Your task to perform on an android device: Go to Google Image 0: 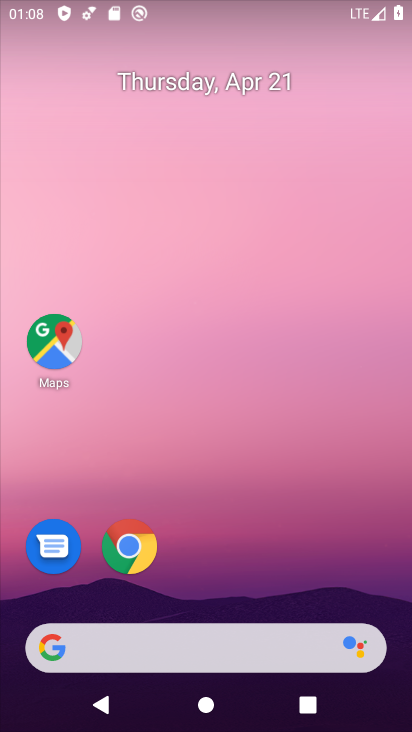
Step 0: drag from (230, 551) to (217, 213)
Your task to perform on an android device: Go to Google Image 1: 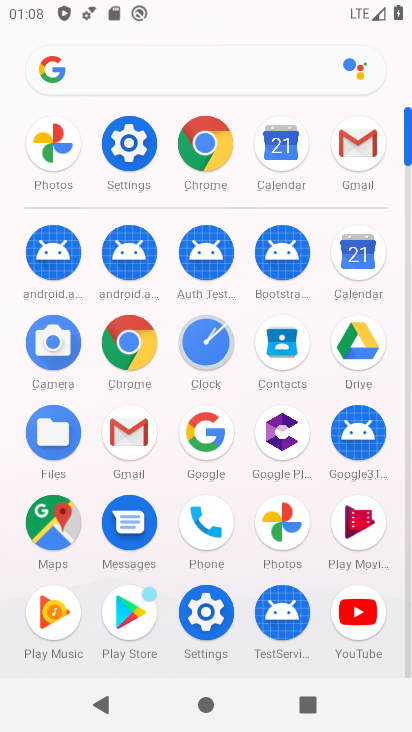
Step 1: click (213, 447)
Your task to perform on an android device: Go to Google Image 2: 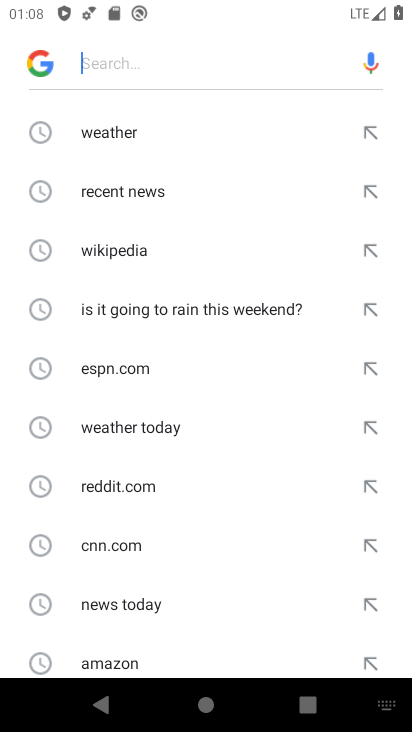
Step 2: task complete